Your task to perform on an android device: Do I have any events this weekend? Image 0: 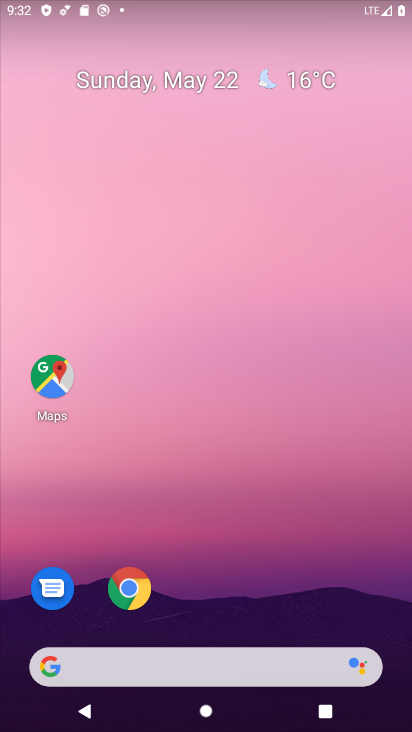
Step 0: drag from (194, 617) to (201, 116)
Your task to perform on an android device: Do I have any events this weekend? Image 1: 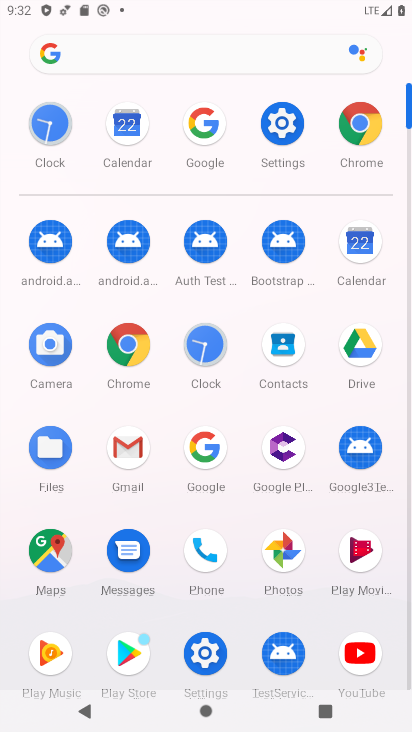
Step 1: click (347, 245)
Your task to perform on an android device: Do I have any events this weekend? Image 2: 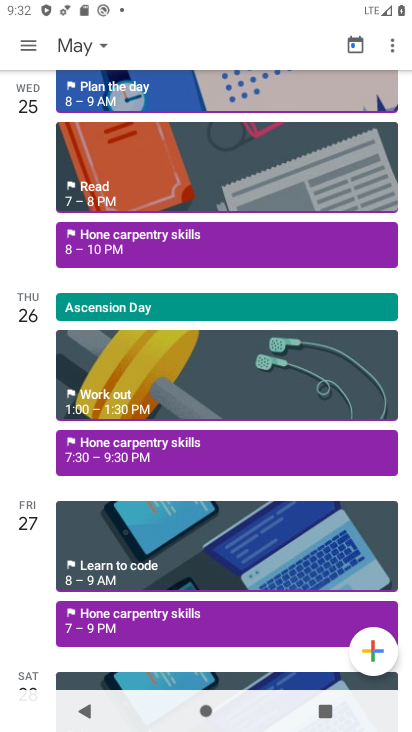
Step 2: click (104, 50)
Your task to perform on an android device: Do I have any events this weekend? Image 3: 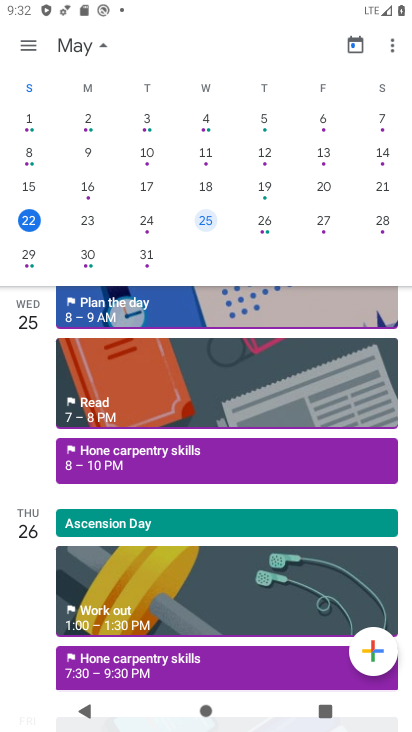
Step 3: click (375, 221)
Your task to perform on an android device: Do I have any events this weekend? Image 4: 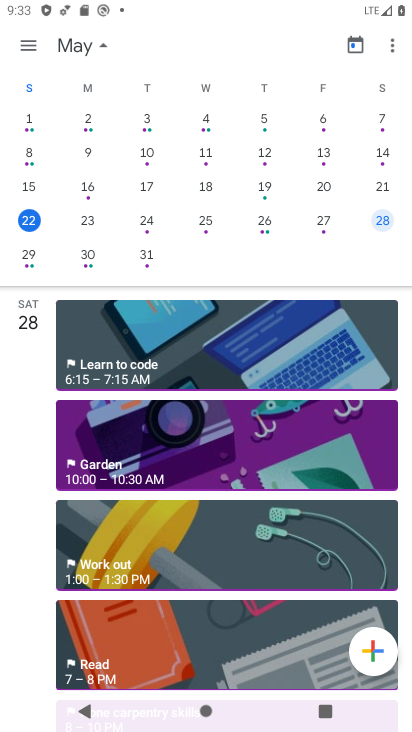
Step 4: click (374, 218)
Your task to perform on an android device: Do I have any events this weekend? Image 5: 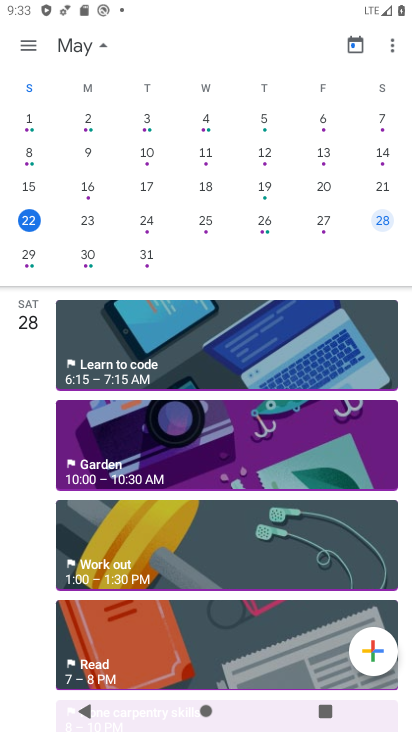
Step 5: task complete